Your task to perform on an android device: Check the weather Image 0: 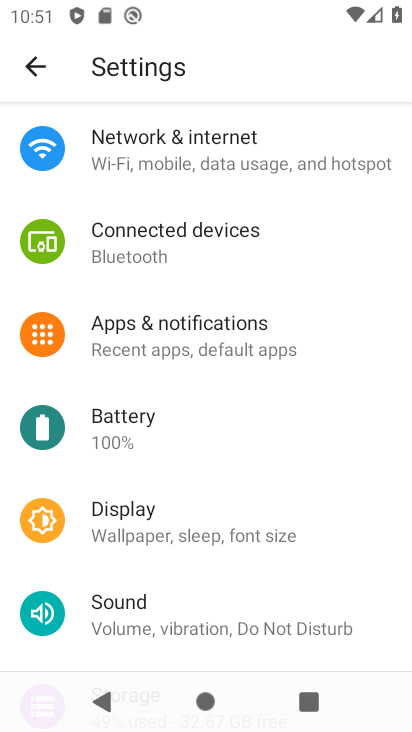
Step 0: press home button
Your task to perform on an android device: Check the weather Image 1: 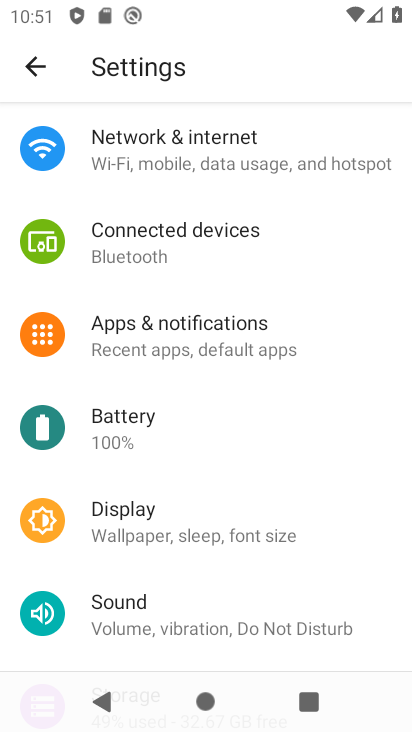
Step 1: press home button
Your task to perform on an android device: Check the weather Image 2: 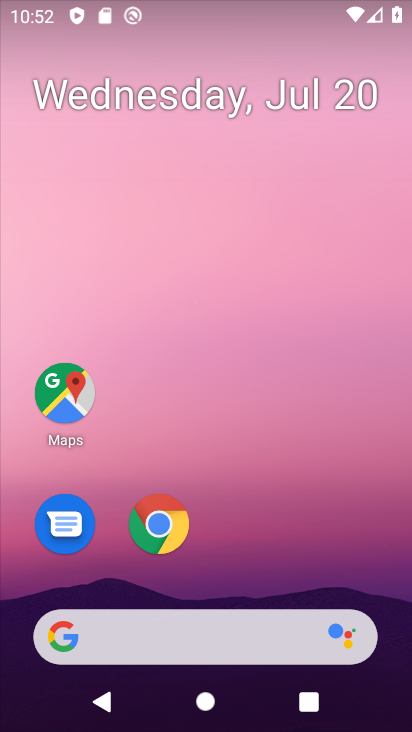
Step 2: click (247, 642)
Your task to perform on an android device: Check the weather Image 3: 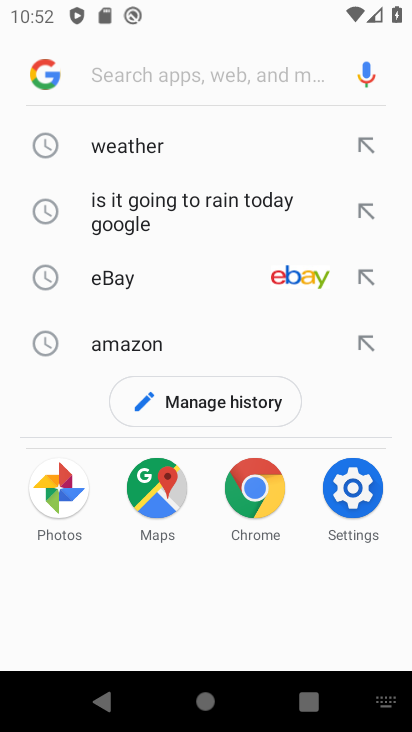
Step 3: click (152, 138)
Your task to perform on an android device: Check the weather Image 4: 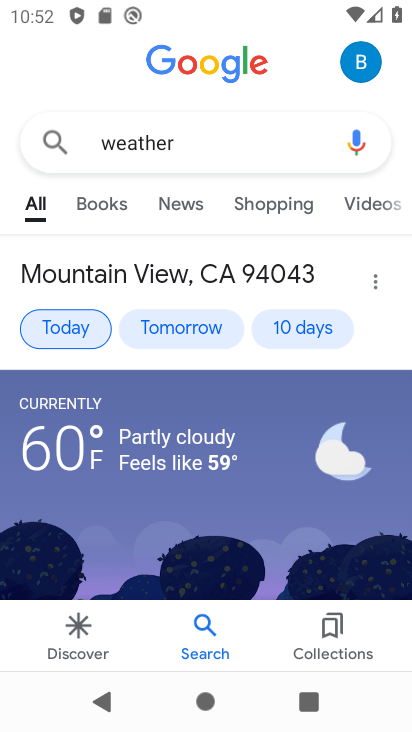
Step 4: click (90, 322)
Your task to perform on an android device: Check the weather Image 5: 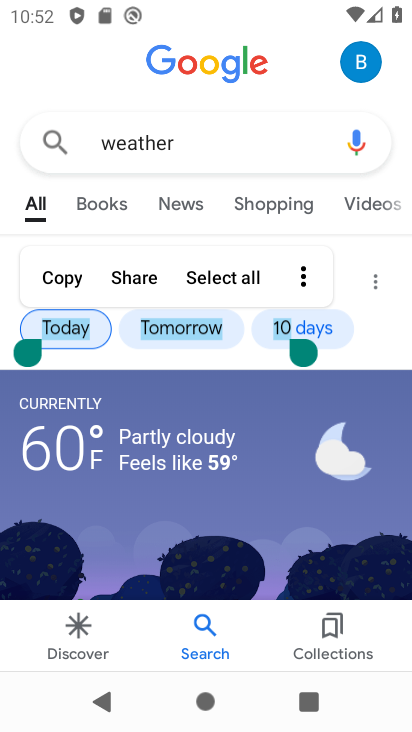
Step 5: click (173, 471)
Your task to perform on an android device: Check the weather Image 6: 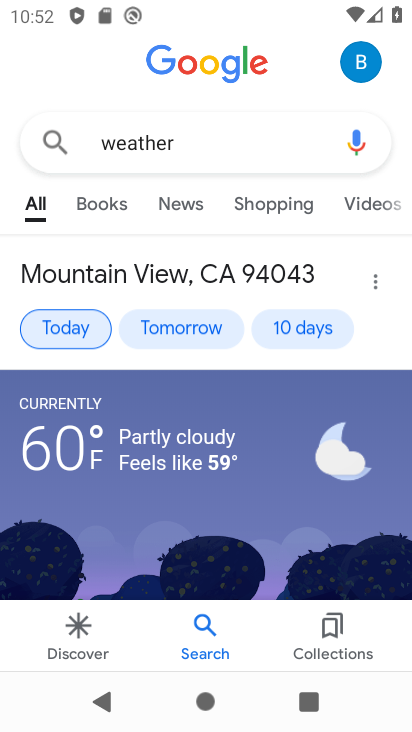
Step 6: click (215, 56)
Your task to perform on an android device: Check the weather Image 7: 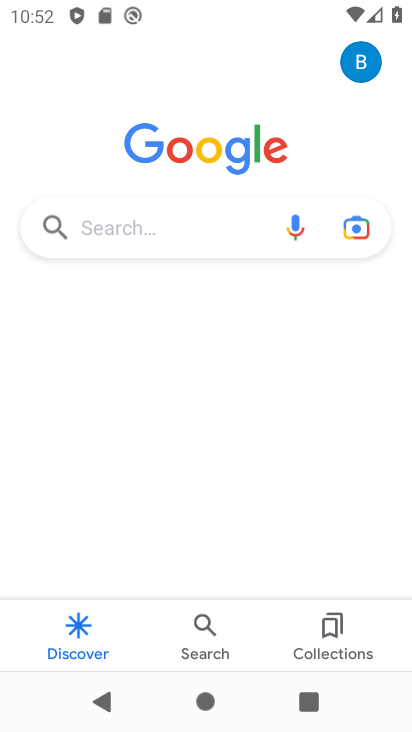
Step 7: click (203, 139)
Your task to perform on an android device: Check the weather Image 8: 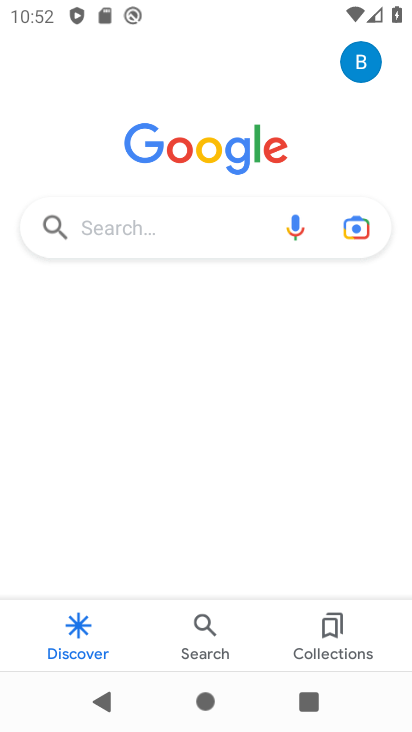
Step 8: click (164, 232)
Your task to perform on an android device: Check the weather Image 9: 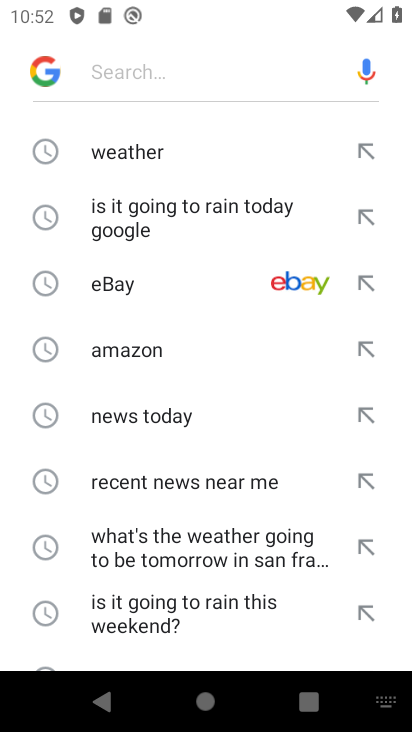
Step 9: click (150, 154)
Your task to perform on an android device: Check the weather Image 10: 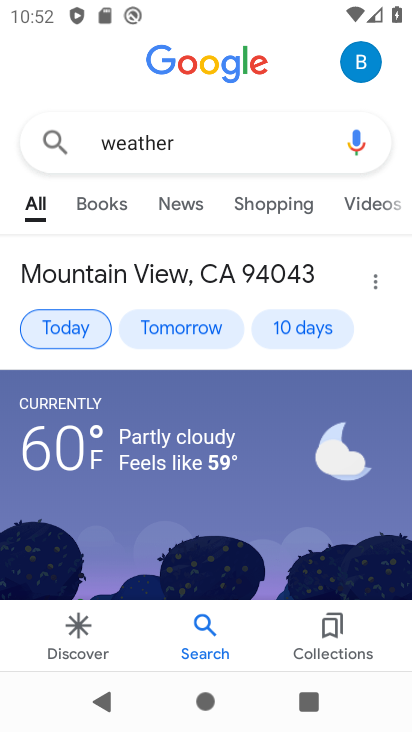
Step 10: click (89, 331)
Your task to perform on an android device: Check the weather Image 11: 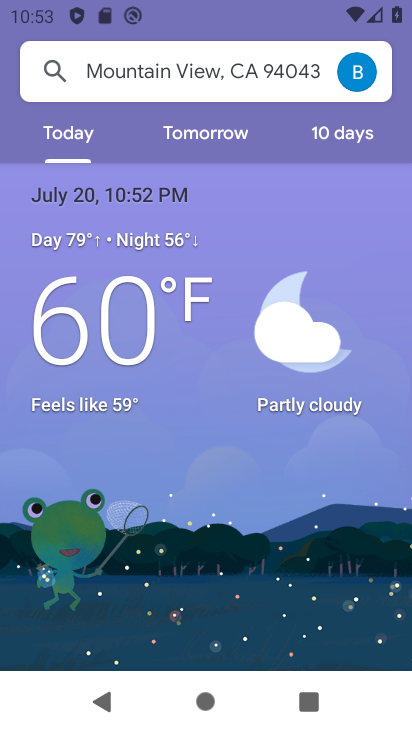
Step 11: task complete